Your task to perform on an android device: change the upload size in google photos Image 0: 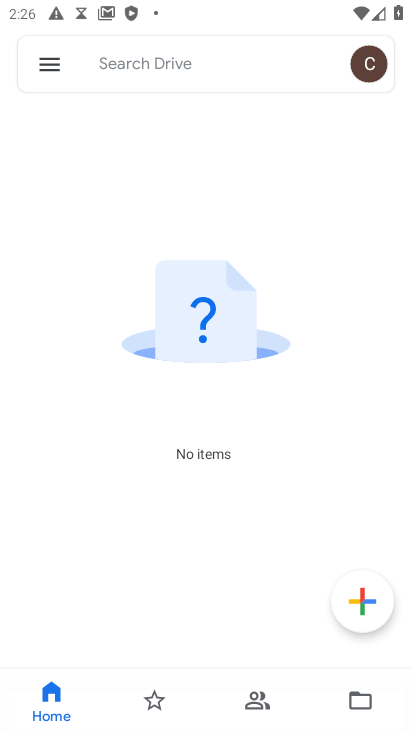
Step 0: press back button
Your task to perform on an android device: change the upload size in google photos Image 1: 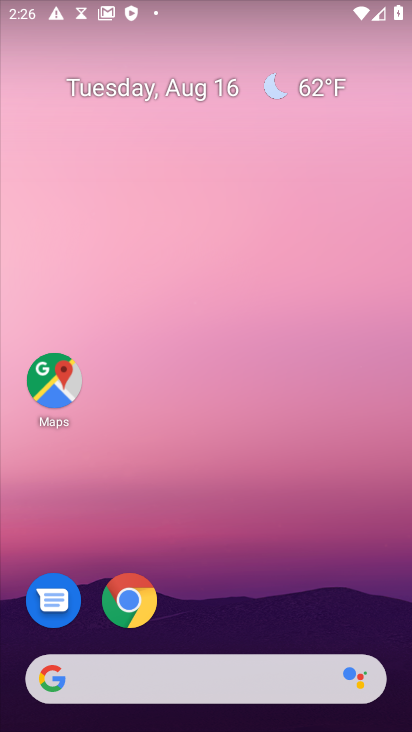
Step 1: drag from (252, 661) to (230, 151)
Your task to perform on an android device: change the upload size in google photos Image 2: 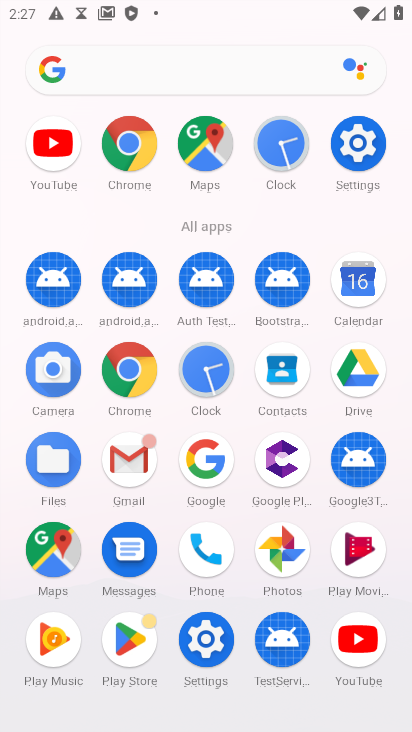
Step 2: click (276, 540)
Your task to perform on an android device: change the upload size in google photos Image 3: 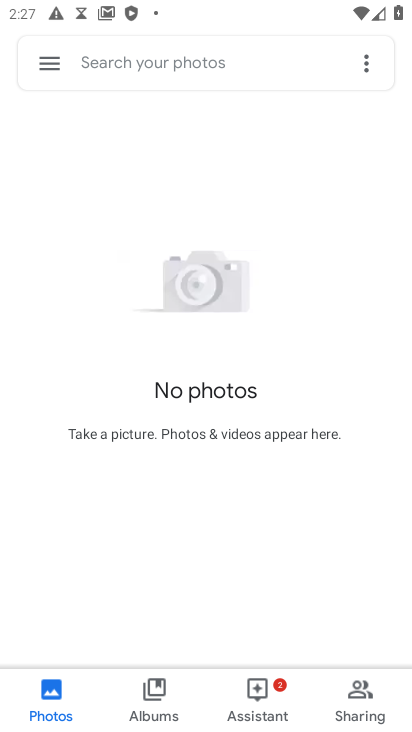
Step 3: click (44, 64)
Your task to perform on an android device: change the upload size in google photos Image 4: 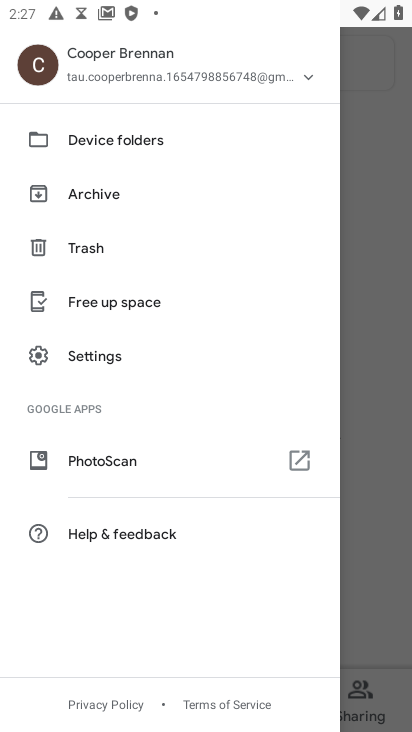
Step 4: click (101, 357)
Your task to perform on an android device: change the upload size in google photos Image 5: 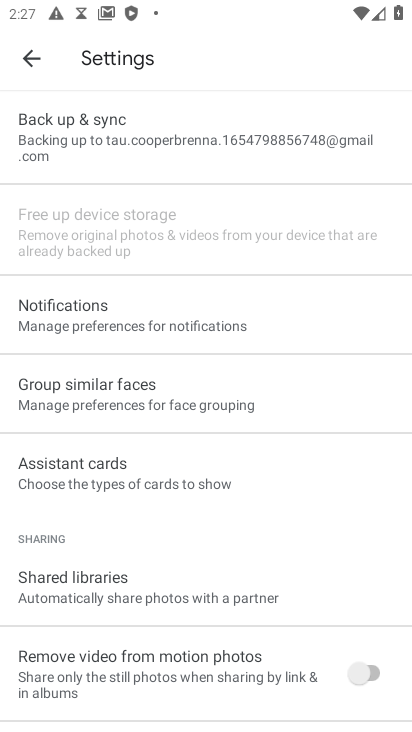
Step 5: click (99, 132)
Your task to perform on an android device: change the upload size in google photos Image 6: 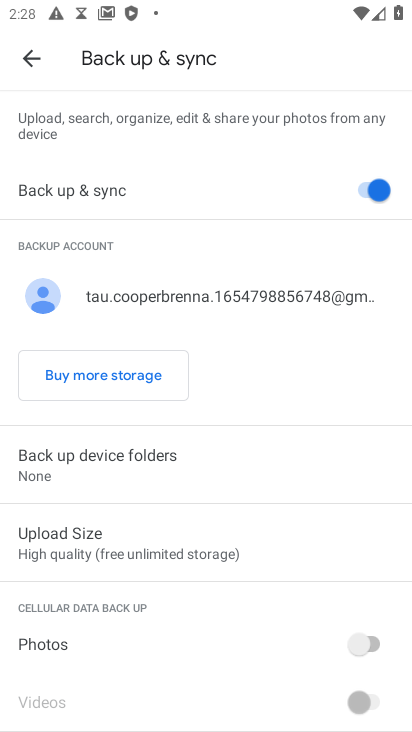
Step 6: click (165, 560)
Your task to perform on an android device: change the upload size in google photos Image 7: 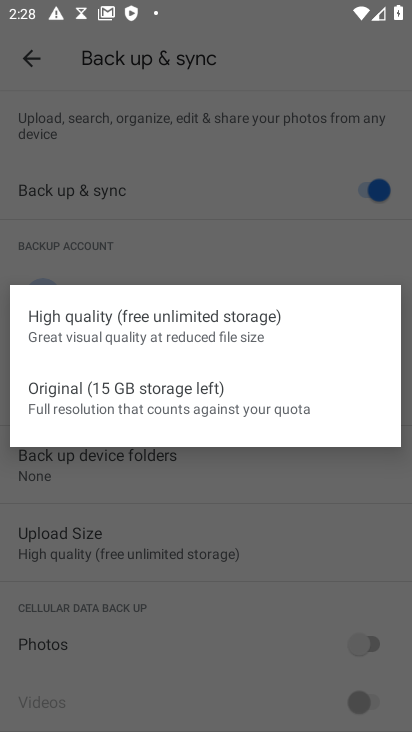
Step 7: click (158, 412)
Your task to perform on an android device: change the upload size in google photos Image 8: 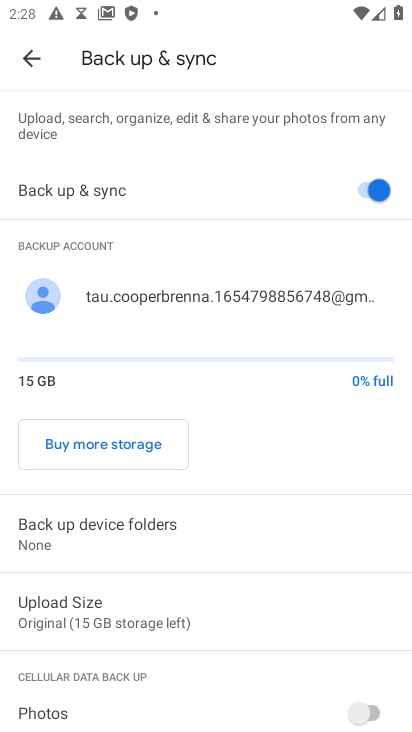
Step 8: task complete